Your task to perform on an android device: What is the recent news? Image 0: 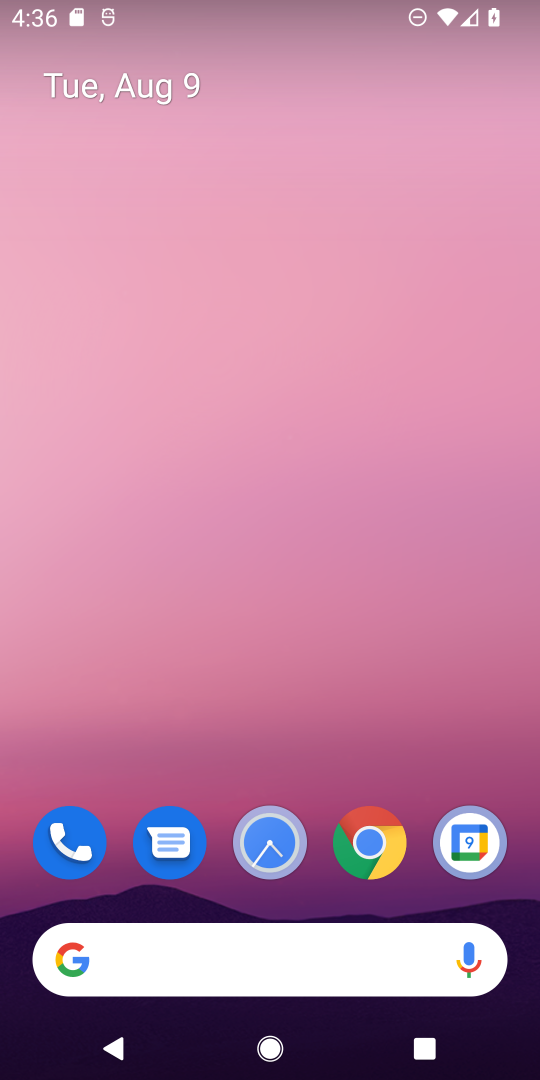
Step 0: drag from (268, 970) to (253, 276)
Your task to perform on an android device: What is the recent news? Image 1: 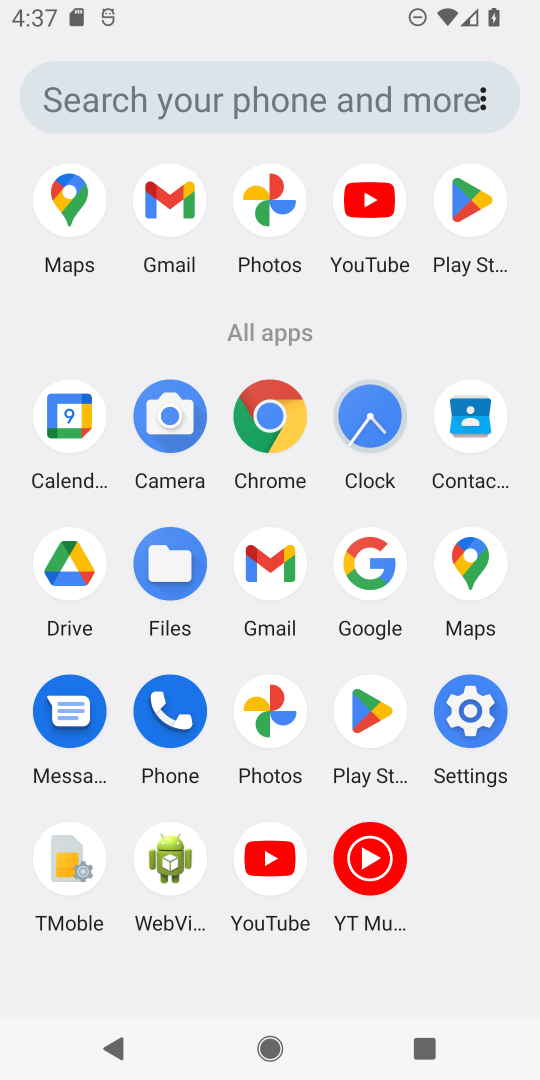
Step 1: click (269, 410)
Your task to perform on an android device: What is the recent news? Image 2: 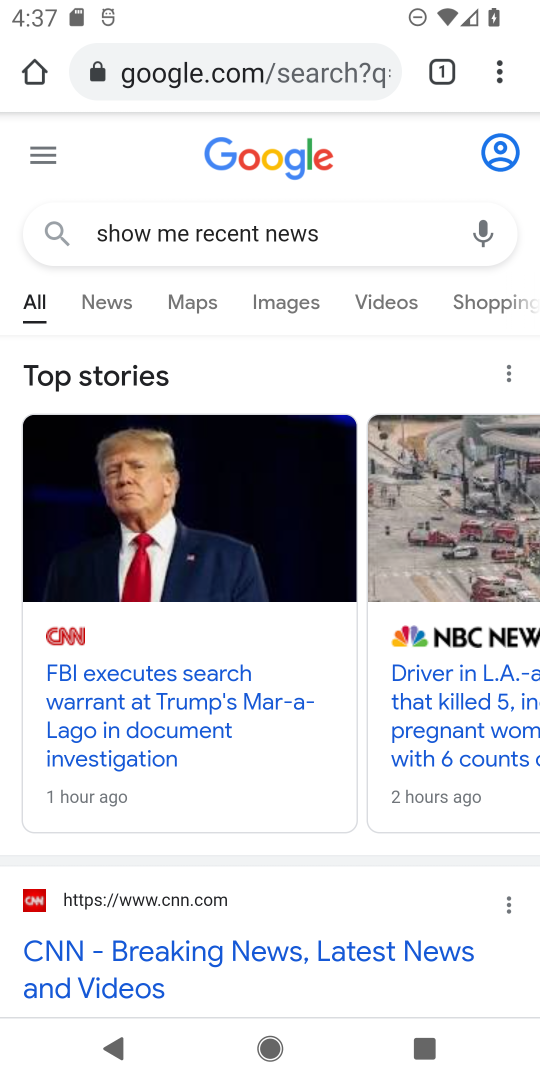
Step 2: click (285, 88)
Your task to perform on an android device: What is the recent news? Image 3: 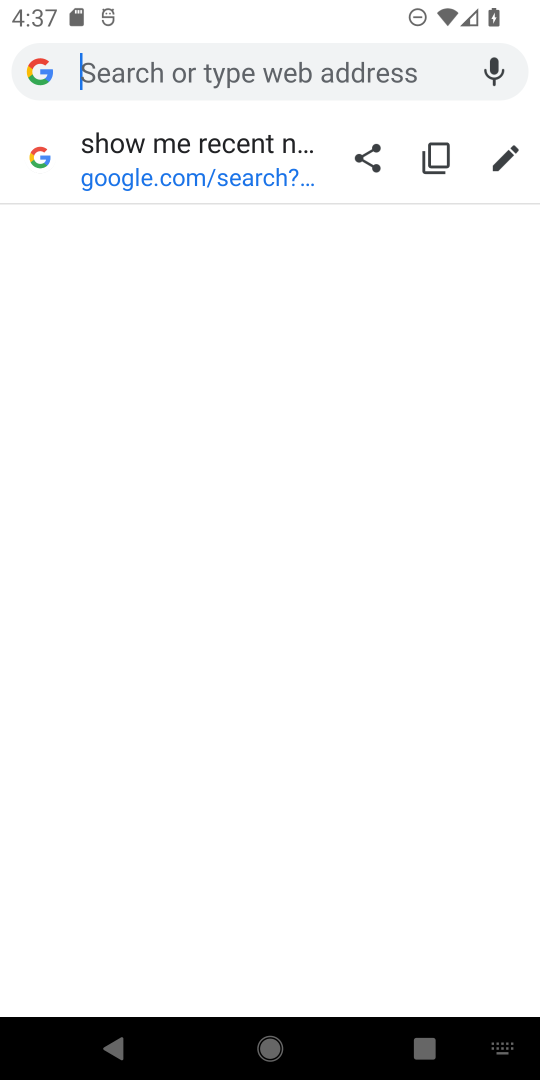
Step 3: type "whats the recent news"
Your task to perform on an android device: What is the recent news? Image 4: 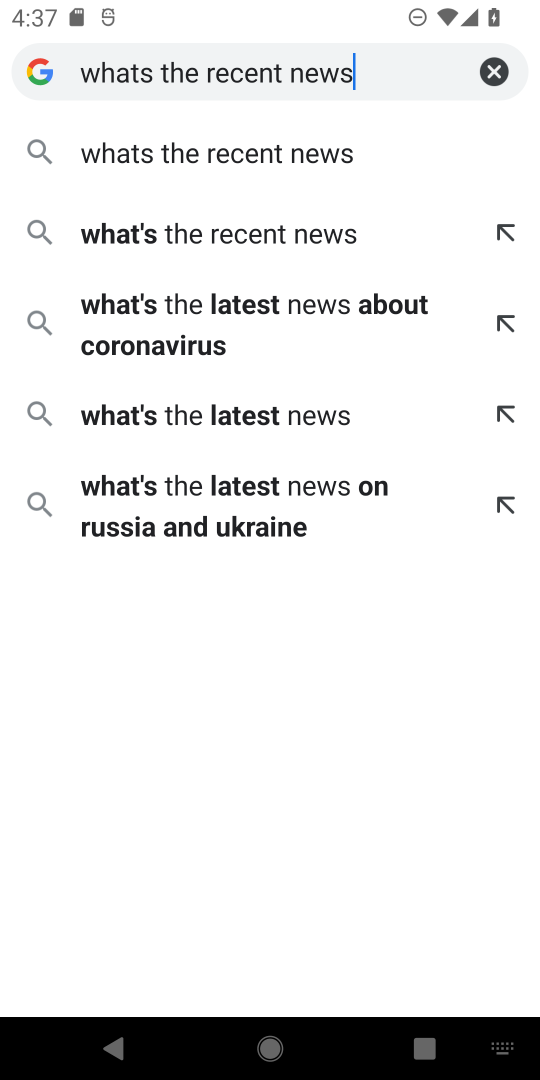
Step 4: click (338, 157)
Your task to perform on an android device: What is the recent news? Image 5: 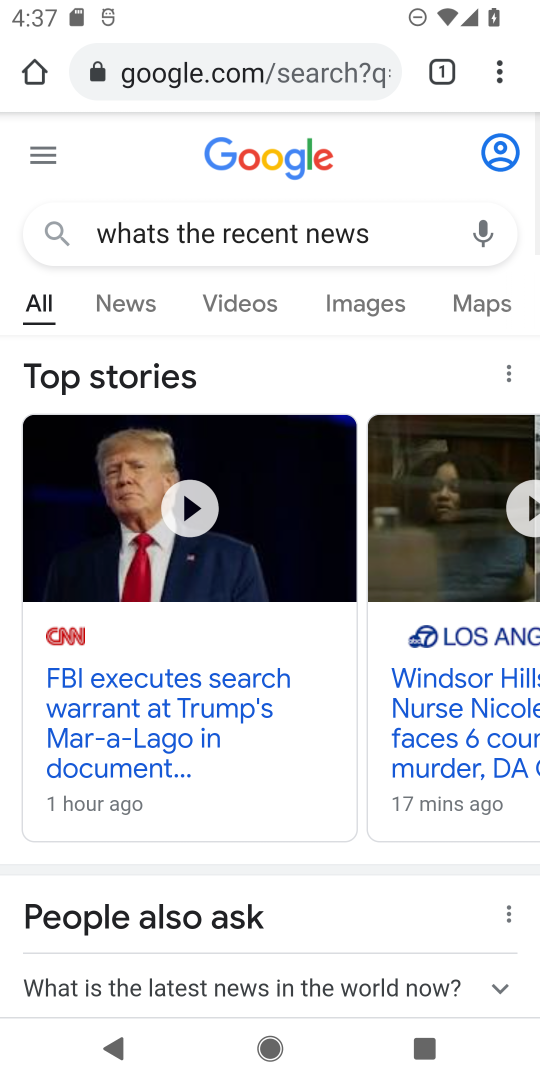
Step 5: task complete